Your task to perform on an android device: Open Google Chrome Image 0: 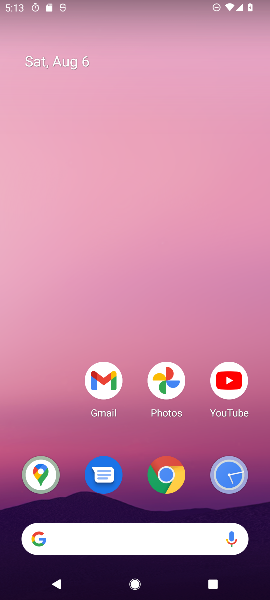
Step 0: click (183, 466)
Your task to perform on an android device: Open Google Chrome Image 1: 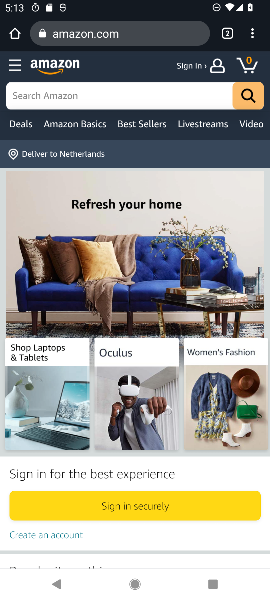
Step 1: task complete